Your task to perform on an android device: turn off picture-in-picture Image 0: 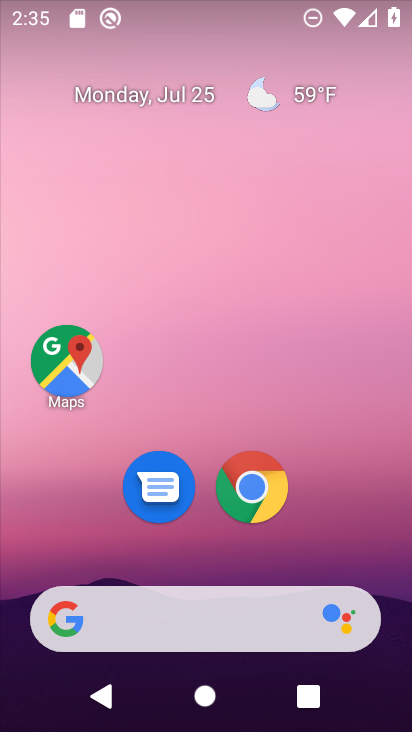
Step 0: drag from (145, 477) to (283, 0)
Your task to perform on an android device: turn off picture-in-picture Image 1: 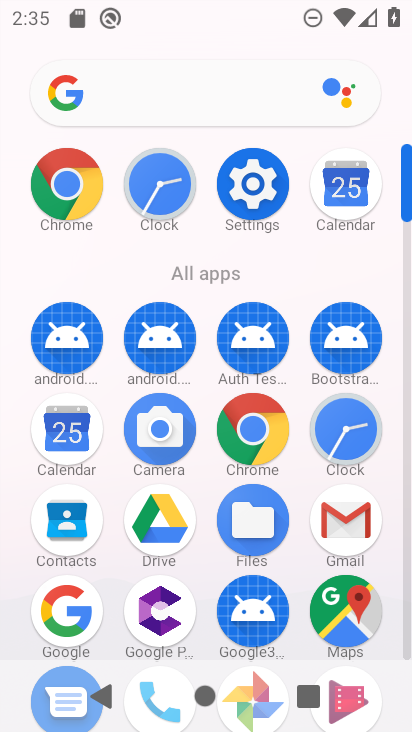
Step 1: click (267, 166)
Your task to perform on an android device: turn off picture-in-picture Image 2: 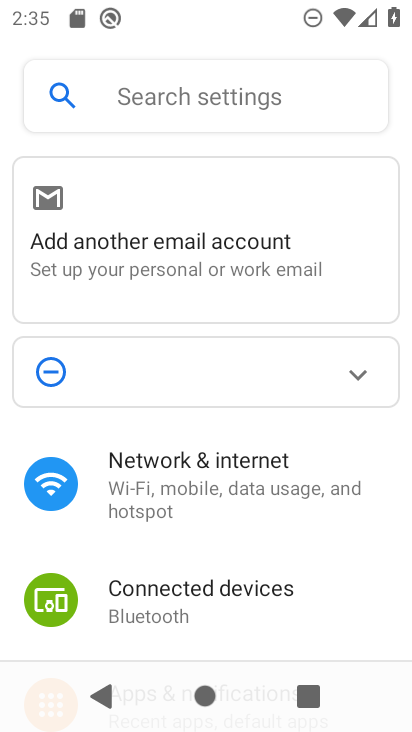
Step 2: drag from (215, 592) to (363, 115)
Your task to perform on an android device: turn off picture-in-picture Image 3: 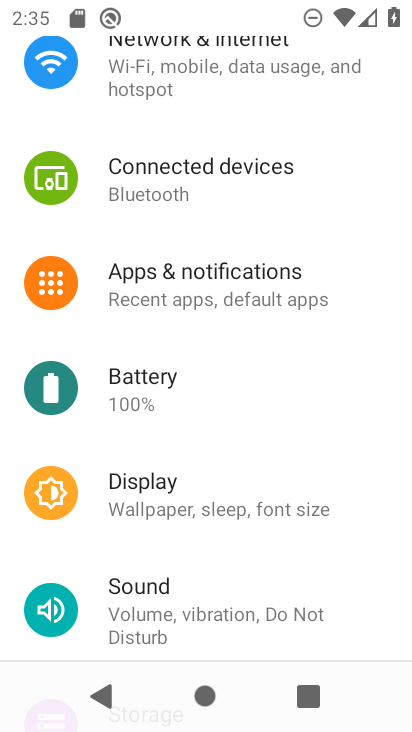
Step 3: click (289, 290)
Your task to perform on an android device: turn off picture-in-picture Image 4: 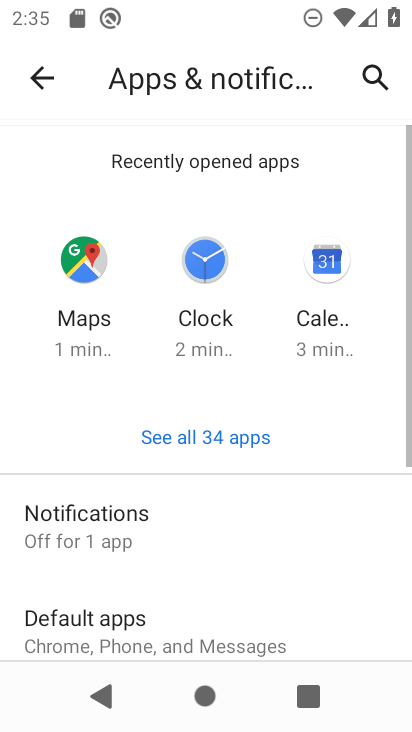
Step 4: drag from (156, 598) to (315, 26)
Your task to perform on an android device: turn off picture-in-picture Image 5: 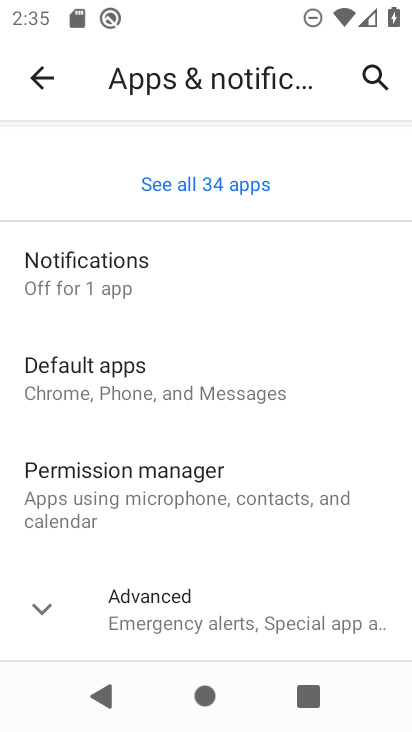
Step 5: click (212, 619)
Your task to perform on an android device: turn off picture-in-picture Image 6: 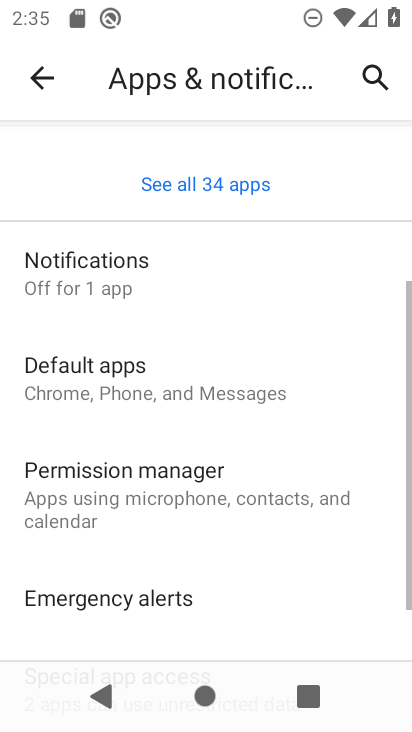
Step 6: drag from (217, 607) to (349, 19)
Your task to perform on an android device: turn off picture-in-picture Image 7: 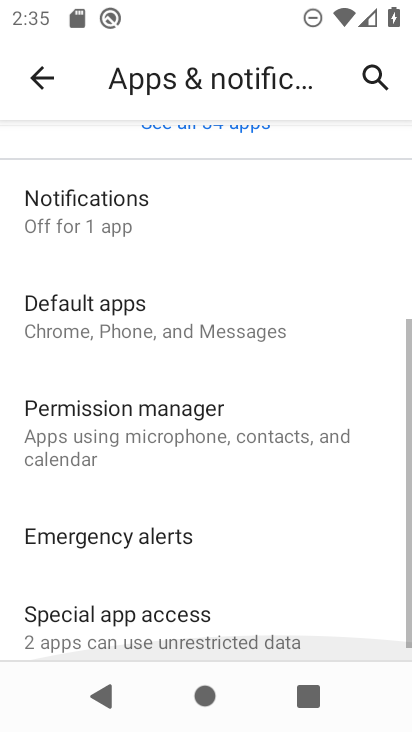
Step 7: click (125, 606)
Your task to perform on an android device: turn off picture-in-picture Image 8: 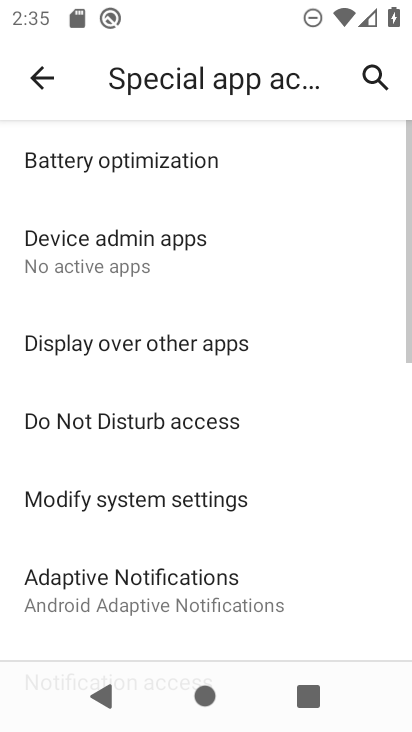
Step 8: drag from (145, 540) to (253, 219)
Your task to perform on an android device: turn off picture-in-picture Image 9: 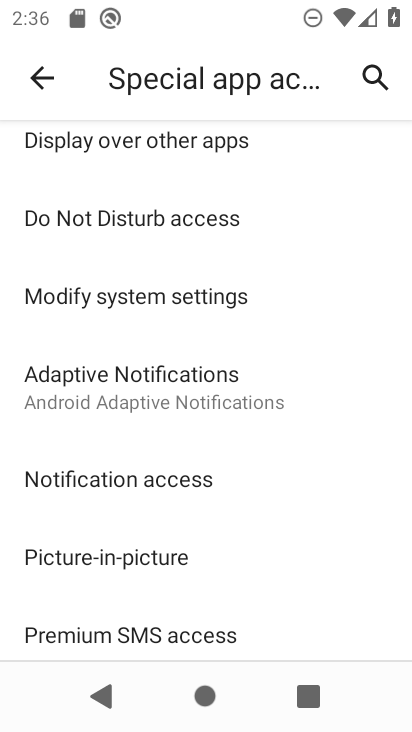
Step 9: click (112, 556)
Your task to perform on an android device: turn off picture-in-picture Image 10: 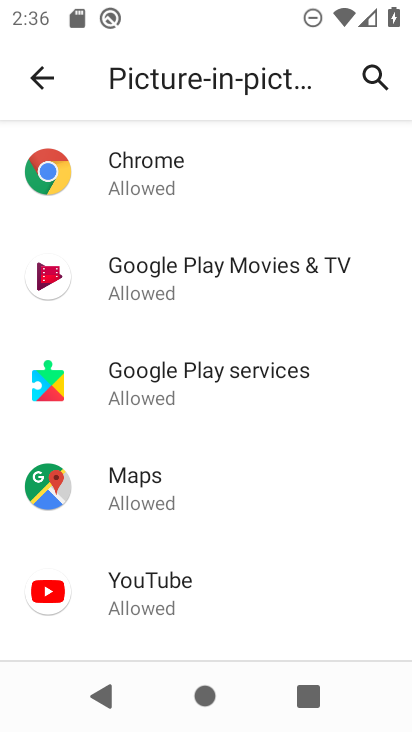
Step 10: click (149, 164)
Your task to perform on an android device: turn off picture-in-picture Image 11: 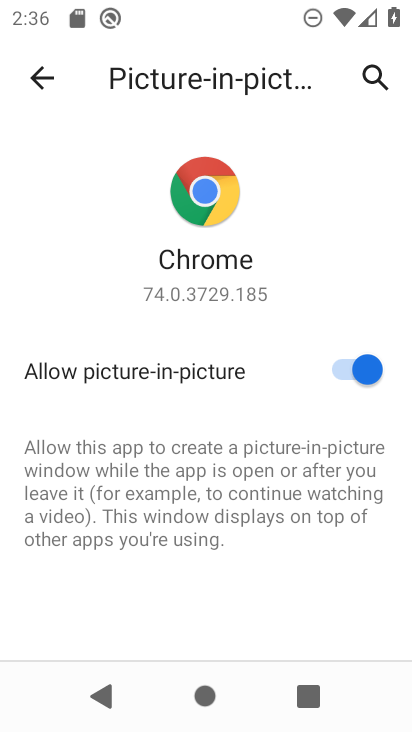
Step 11: click (354, 358)
Your task to perform on an android device: turn off picture-in-picture Image 12: 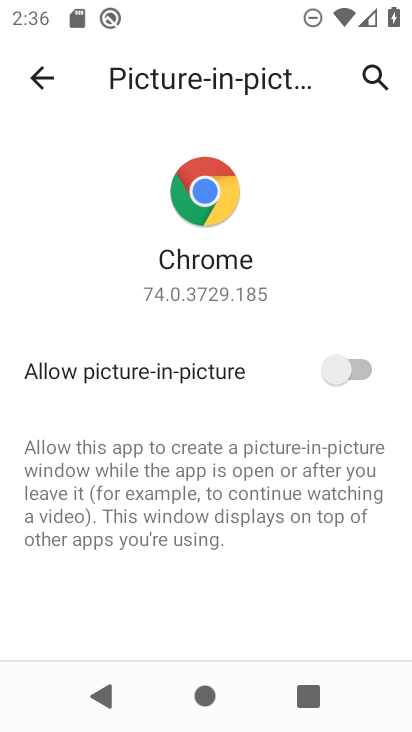
Step 12: task complete